Your task to perform on an android device: change your default location settings in chrome Image 0: 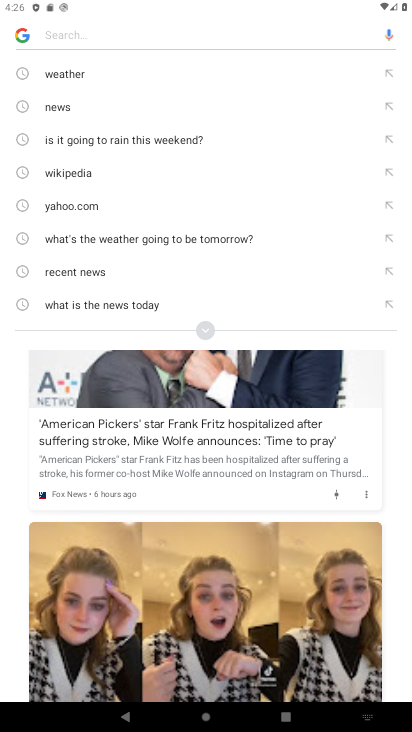
Step 0: press home button
Your task to perform on an android device: change your default location settings in chrome Image 1: 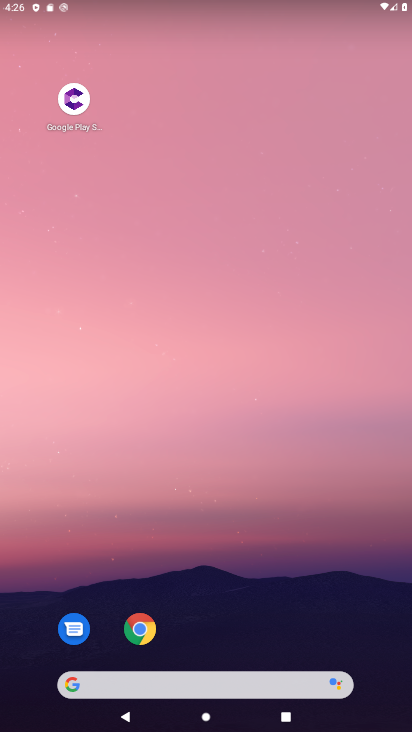
Step 1: click (135, 630)
Your task to perform on an android device: change your default location settings in chrome Image 2: 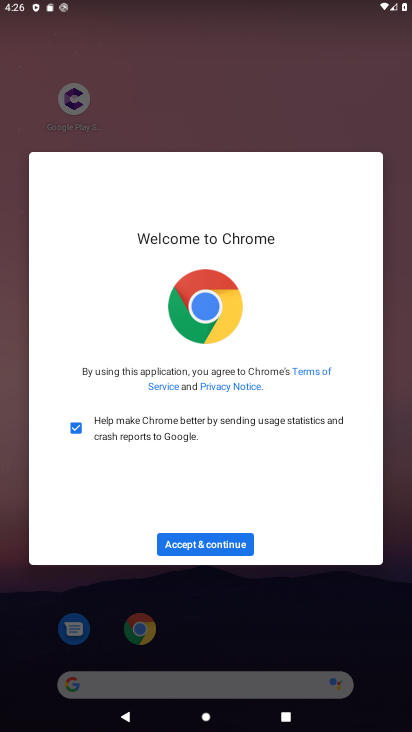
Step 2: click (196, 545)
Your task to perform on an android device: change your default location settings in chrome Image 3: 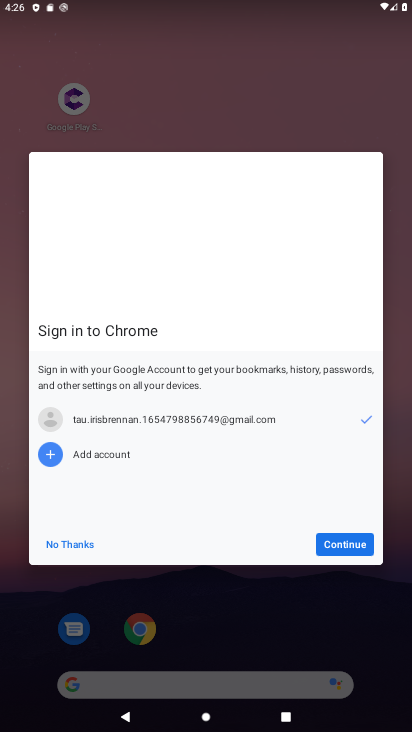
Step 3: click (338, 543)
Your task to perform on an android device: change your default location settings in chrome Image 4: 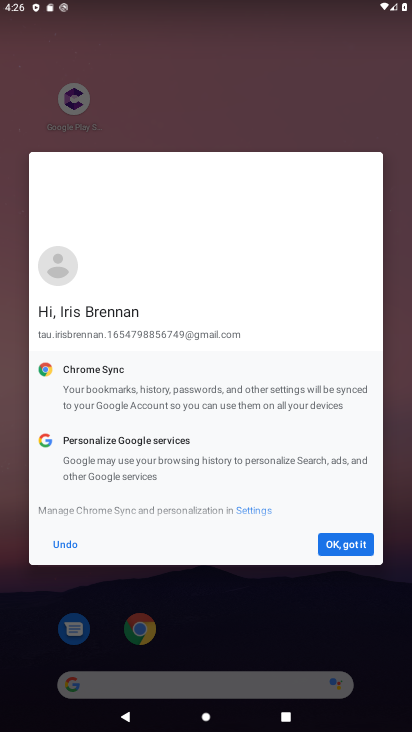
Step 4: click (338, 543)
Your task to perform on an android device: change your default location settings in chrome Image 5: 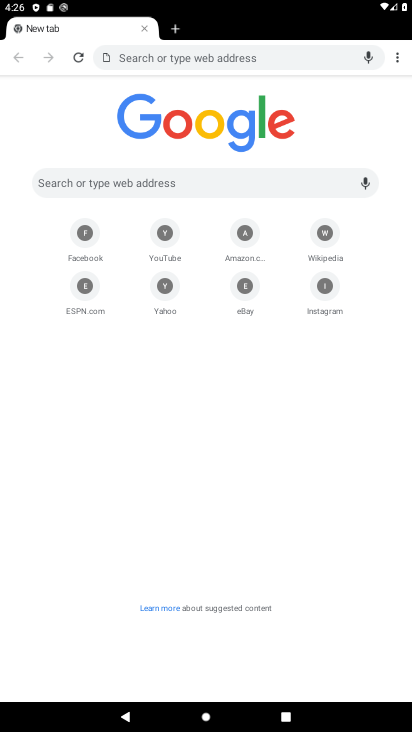
Step 5: task complete